Your task to perform on an android device: turn on the 12-hour format for clock Image 0: 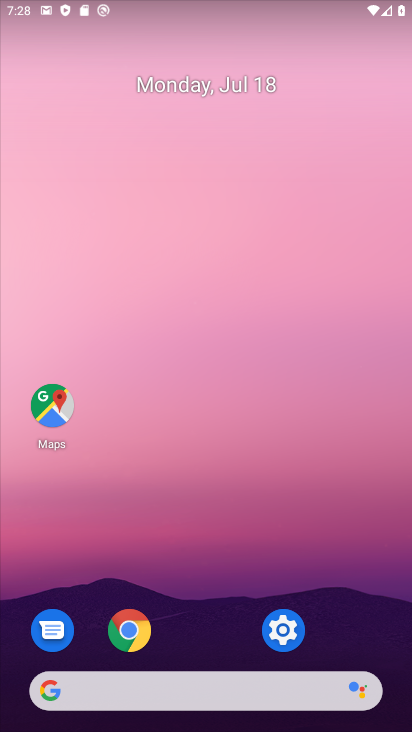
Step 0: drag from (256, 679) to (256, 161)
Your task to perform on an android device: turn on the 12-hour format for clock Image 1: 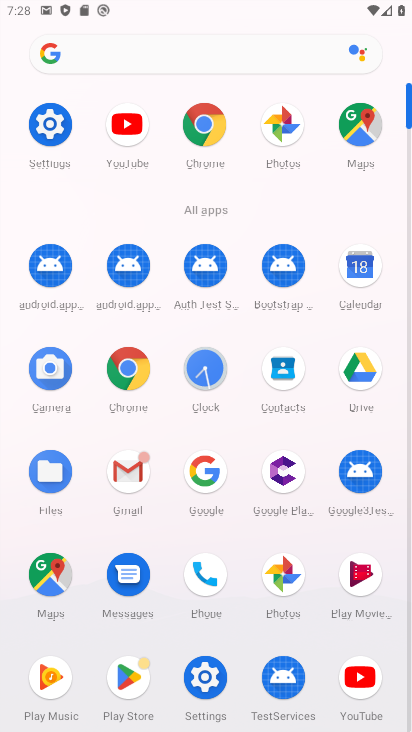
Step 1: click (197, 385)
Your task to perform on an android device: turn on the 12-hour format for clock Image 2: 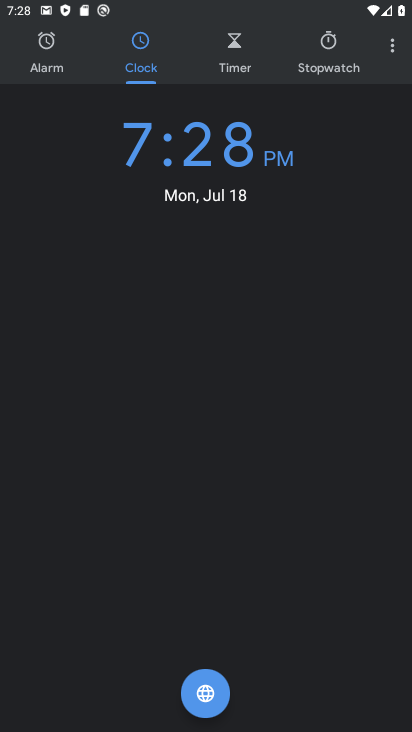
Step 2: click (387, 58)
Your task to perform on an android device: turn on the 12-hour format for clock Image 3: 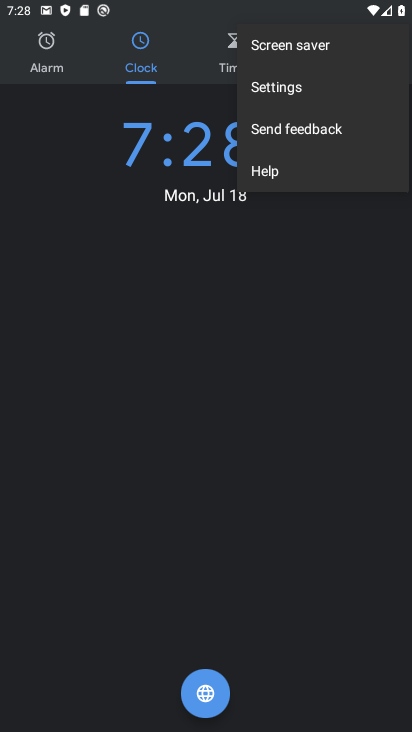
Step 3: click (290, 95)
Your task to perform on an android device: turn on the 12-hour format for clock Image 4: 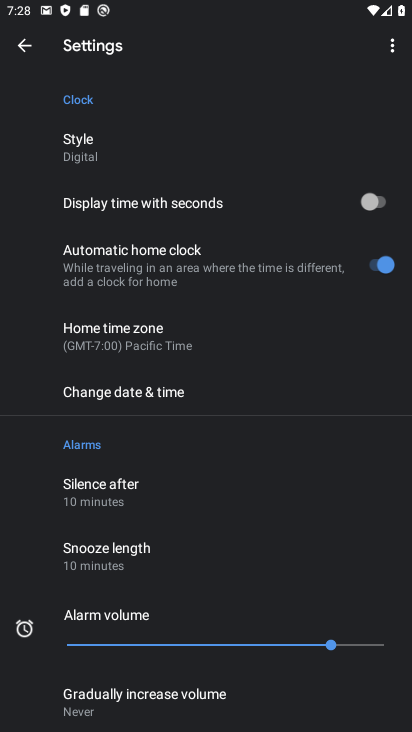
Step 4: click (125, 388)
Your task to perform on an android device: turn on the 12-hour format for clock Image 5: 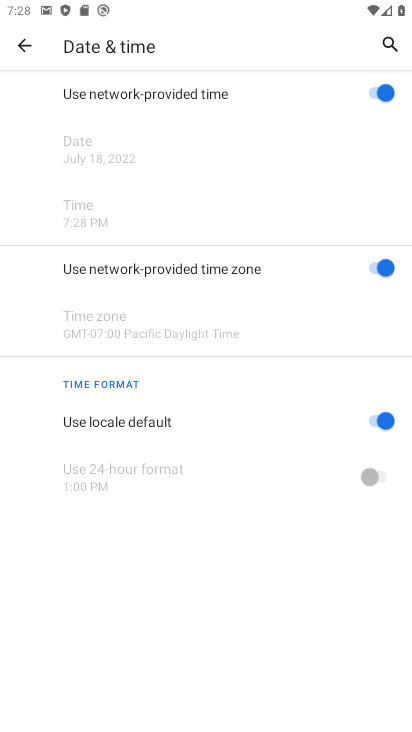
Step 5: click (390, 412)
Your task to perform on an android device: turn on the 12-hour format for clock Image 6: 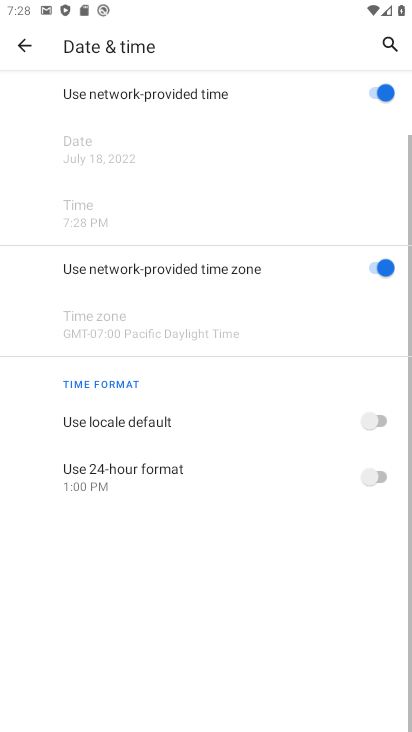
Step 6: click (373, 481)
Your task to perform on an android device: turn on the 12-hour format for clock Image 7: 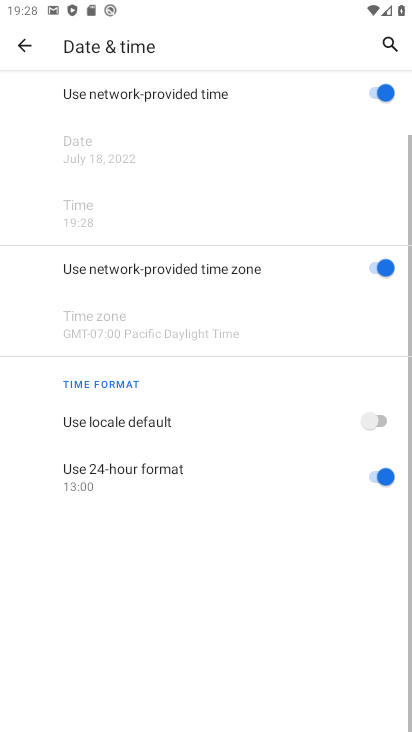
Step 7: click (373, 481)
Your task to perform on an android device: turn on the 12-hour format for clock Image 8: 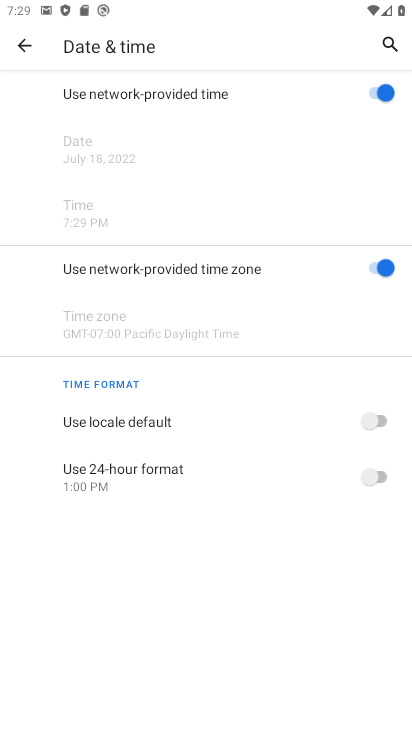
Step 8: task complete